Your task to perform on an android device: install app "Viber Messenger" Image 0: 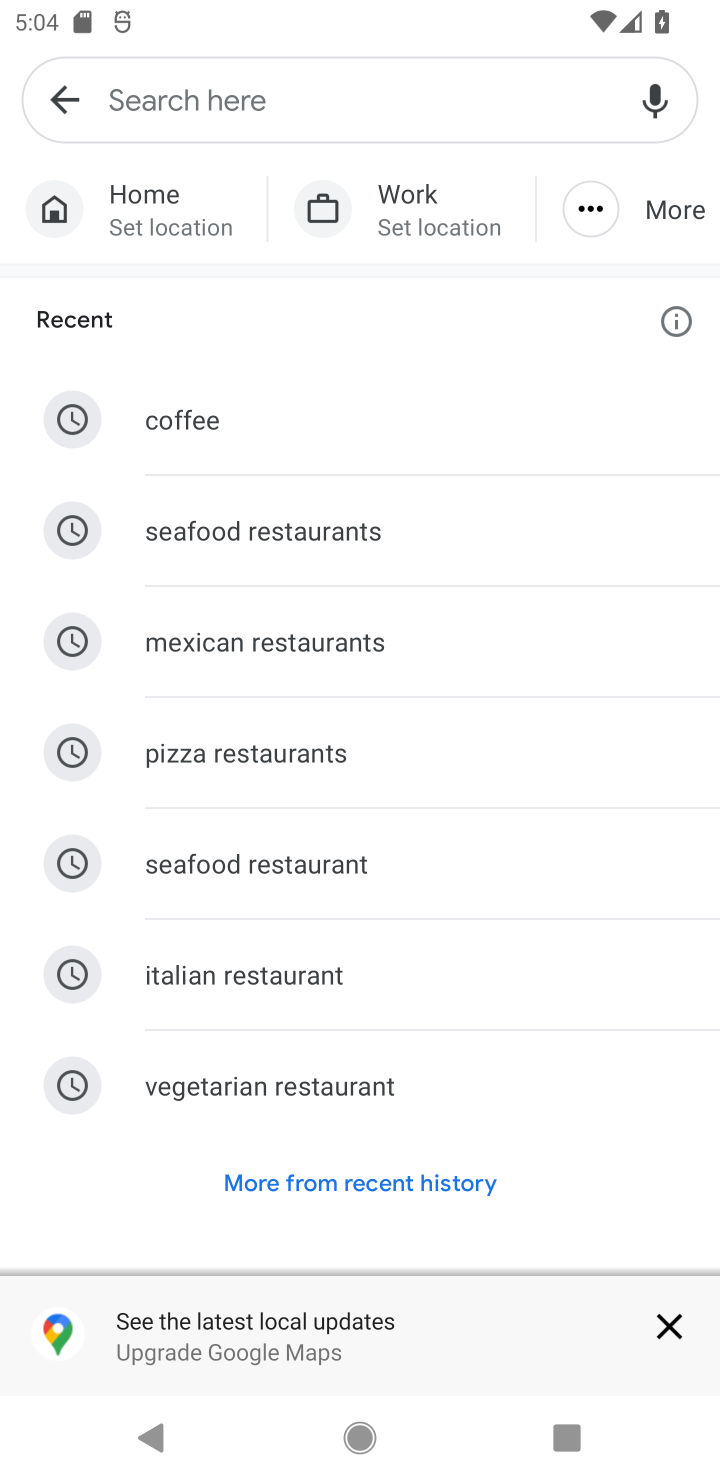
Step 0: press home button
Your task to perform on an android device: install app "Viber Messenger" Image 1: 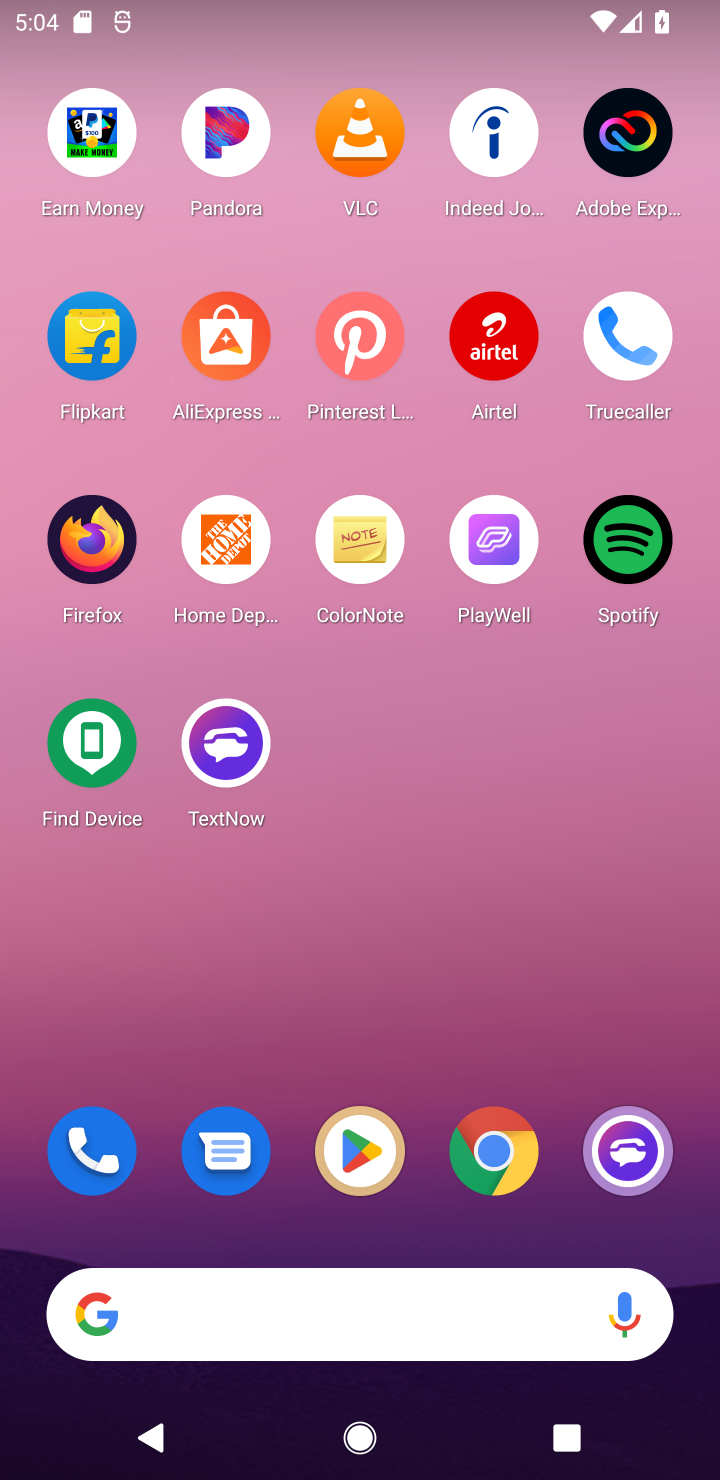
Step 1: click (381, 1164)
Your task to perform on an android device: install app "Viber Messenger" Image 2: 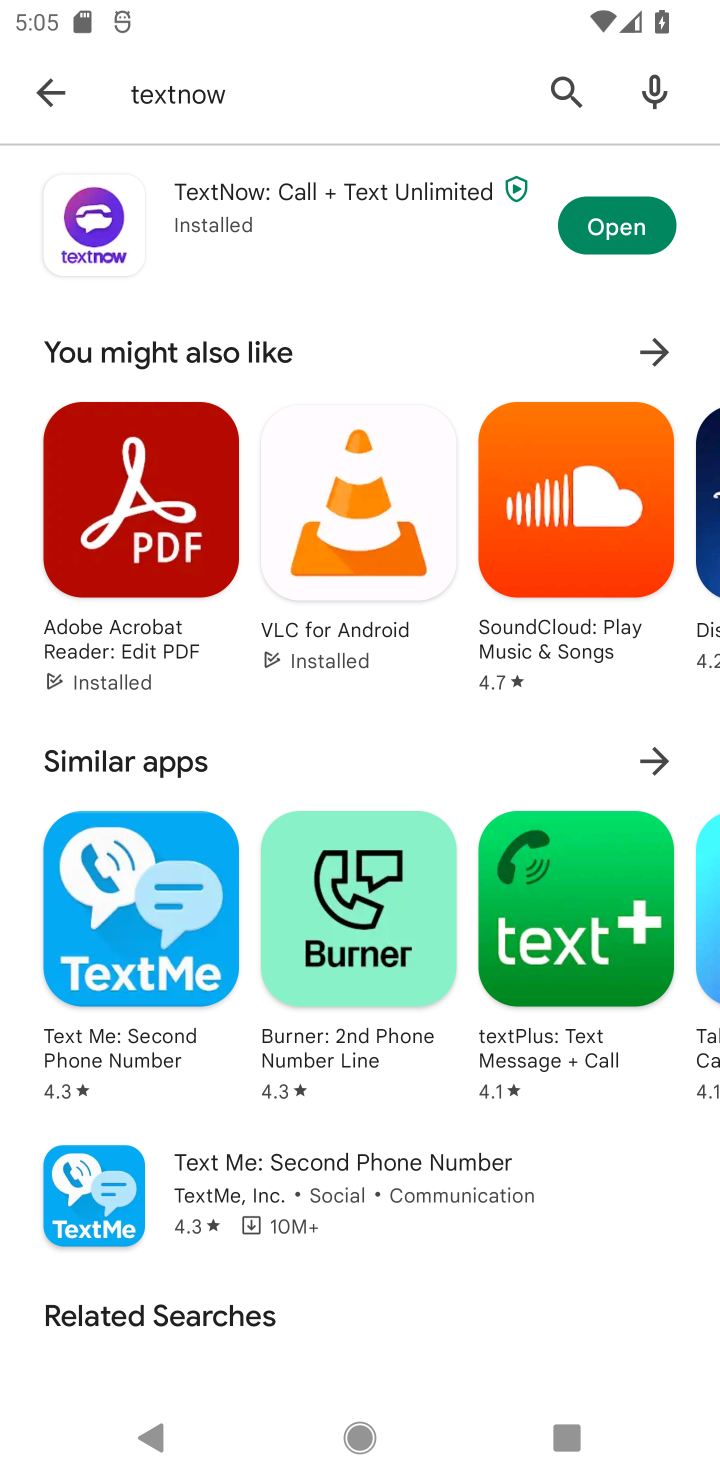
Step 2: click (572, 84)
Your task to perform on an android device: install app "Viber Messenger" Image 3: 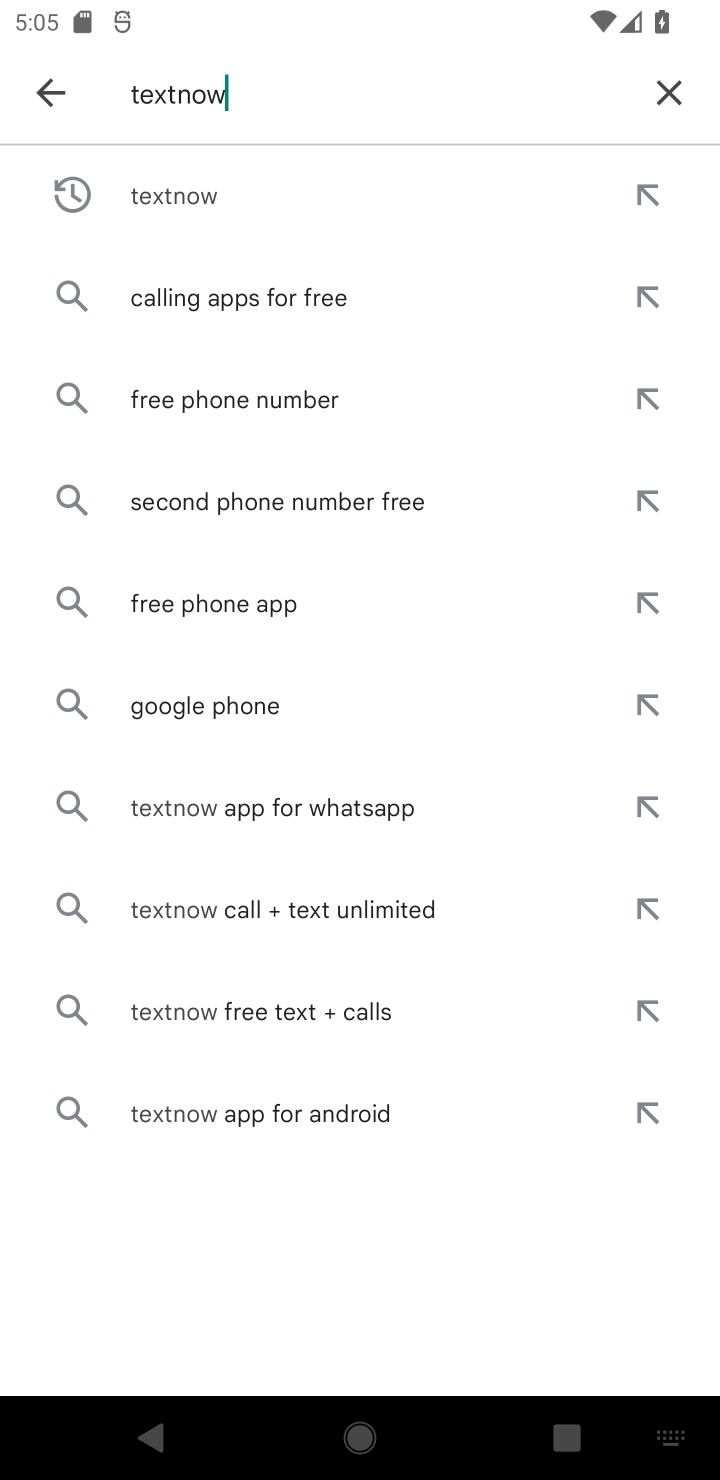
Step 3: click (689, 107)
Your task to perform on an android device: install app "Viber Messenger" Image 4: 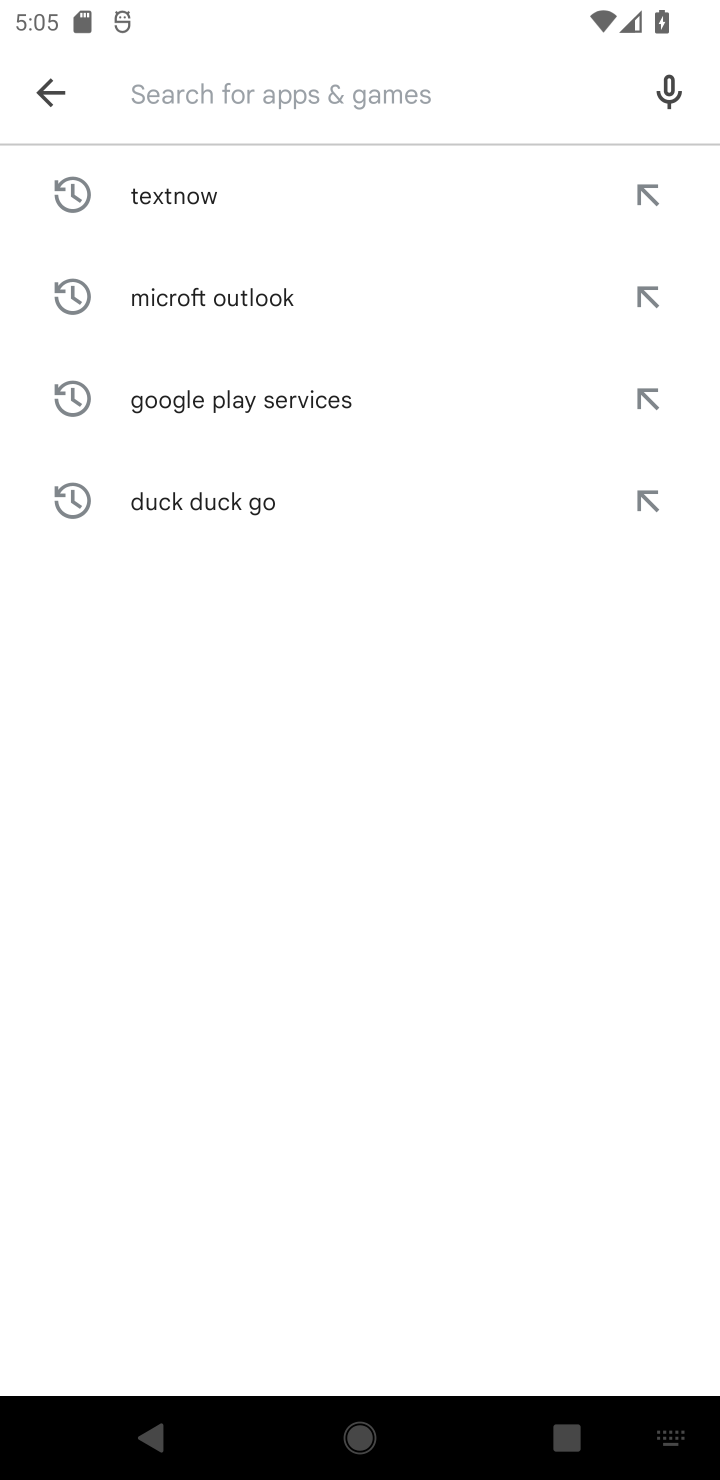
Step 4: type "vber"
Your task to perform on an android device: install app "Viber Messenger" Image 5: 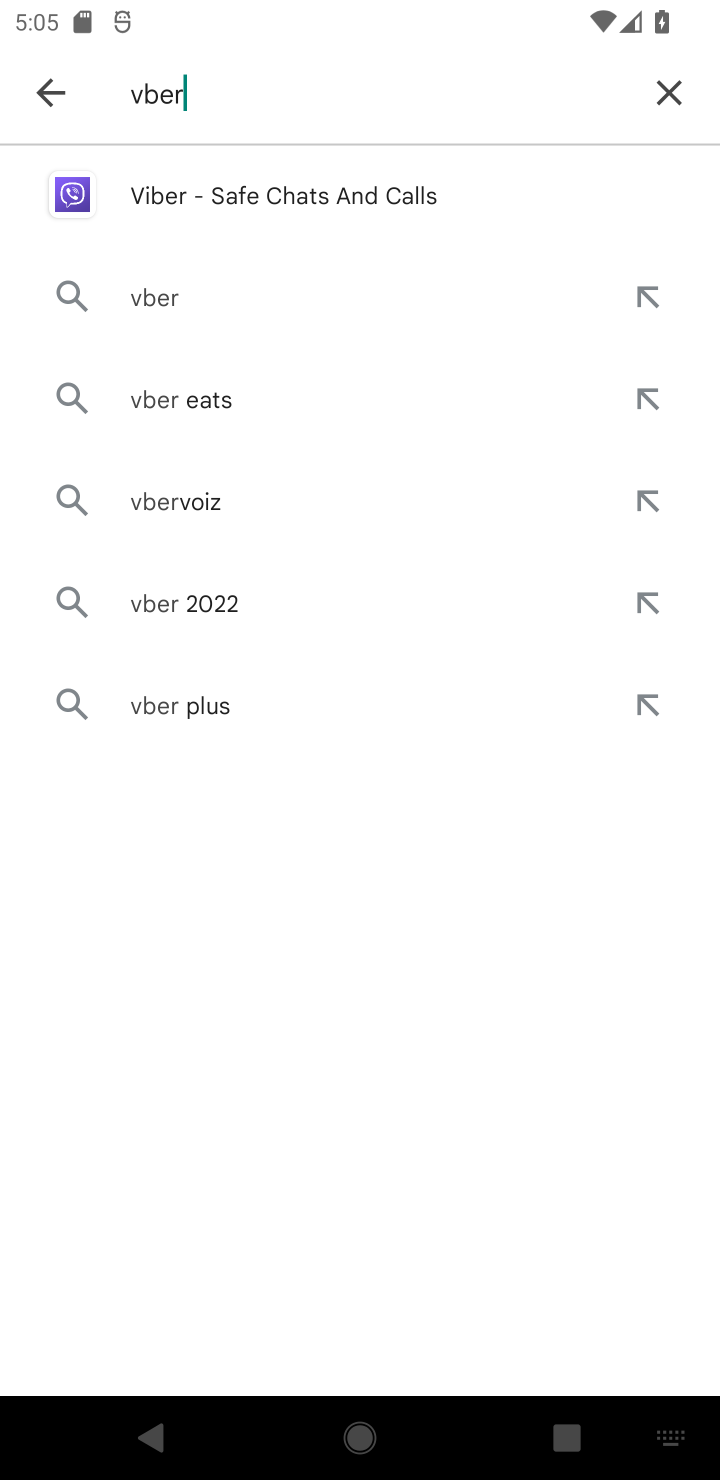
Step 5: click (285, 217)
Your task to perform on an android device: install app "Viber Messenger" Image 6: 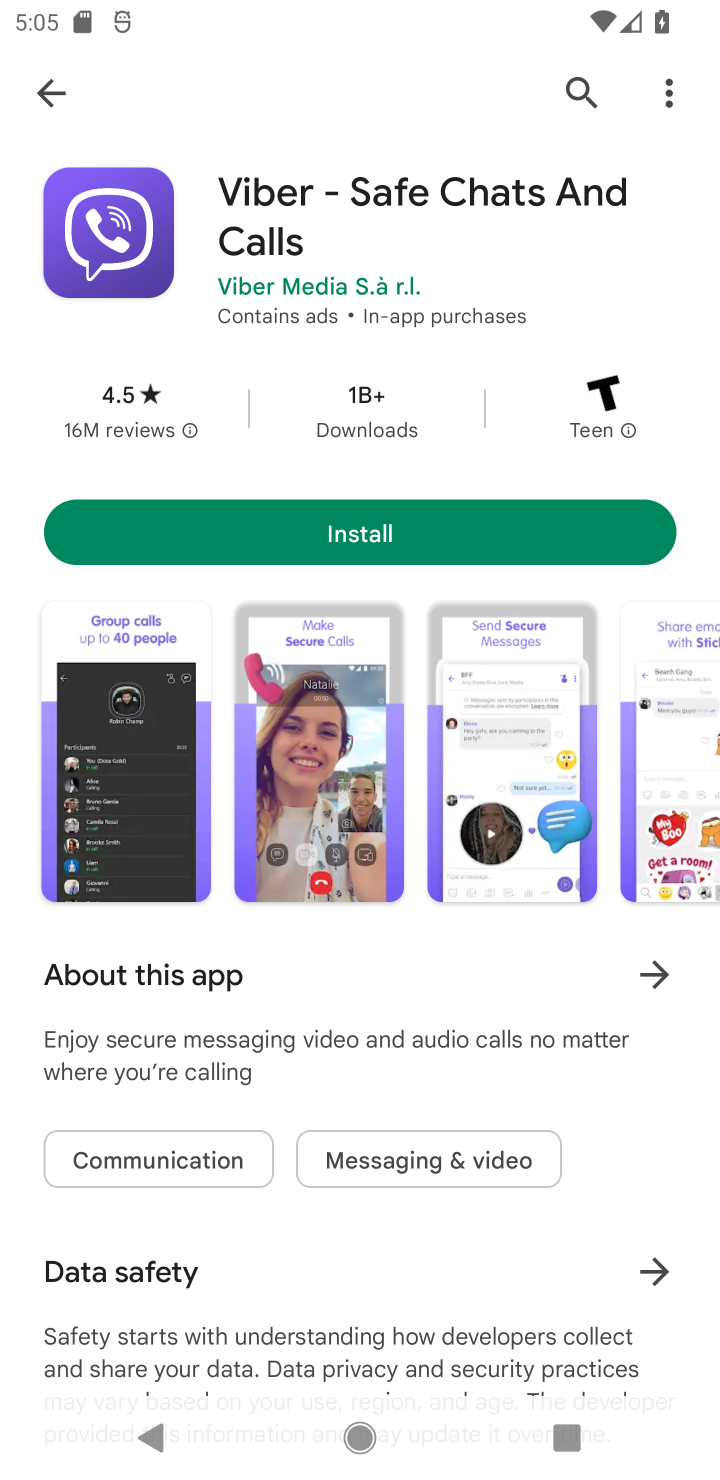
Step 6: click (438, 557)
Your task to perform on an android device: install app "Viber Messenger" Image 7: 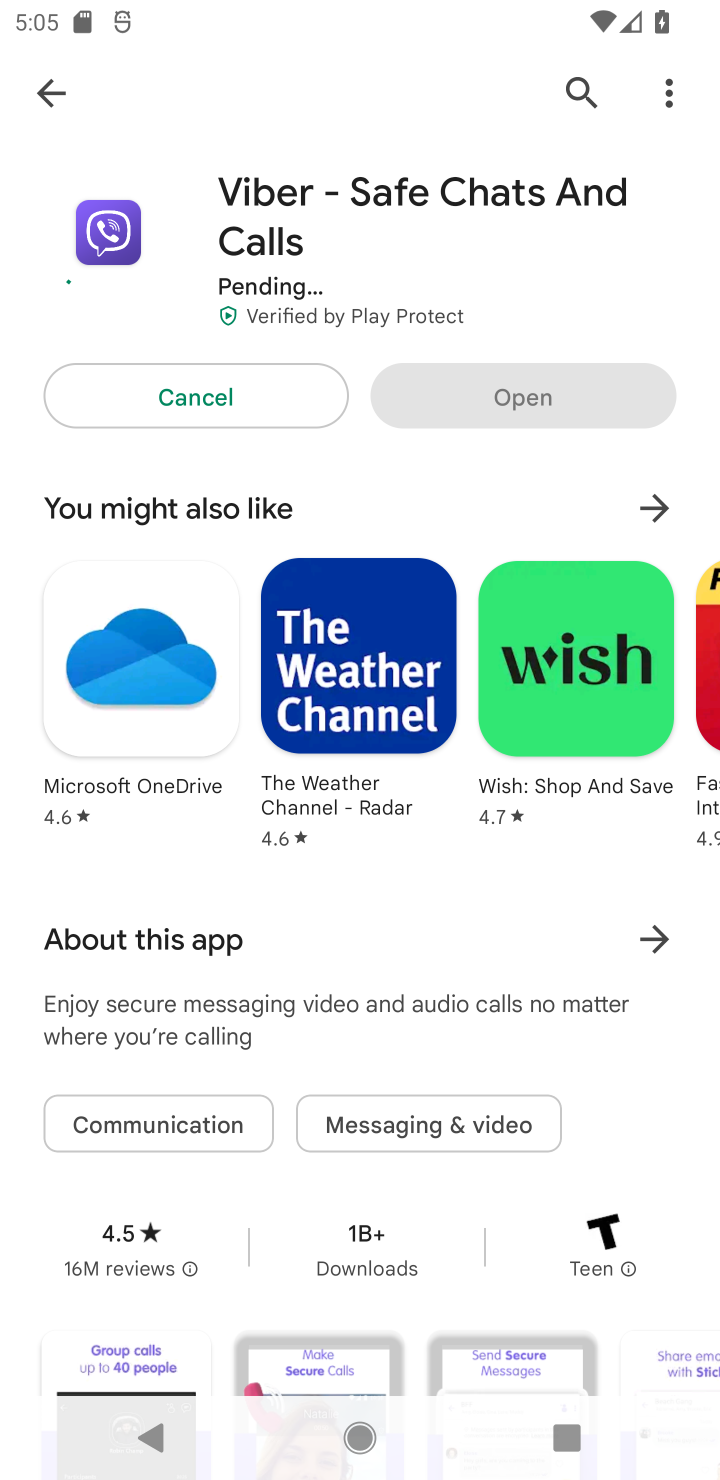
Step 7: task complete